Your task to perform on an android device: Find coffee shops on Maps Image 0: 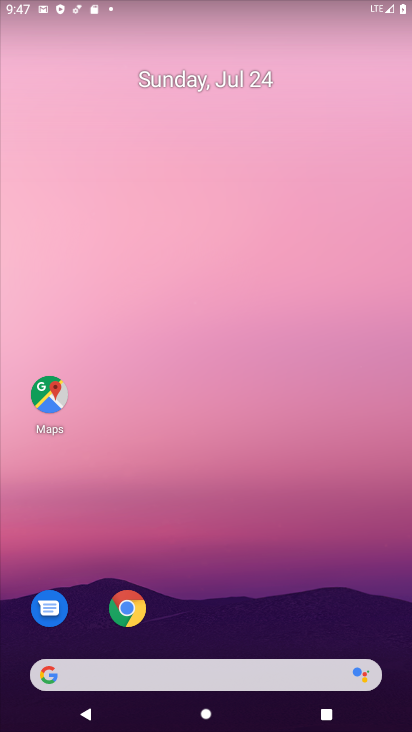
Step 0: press home button
Your task to perform on an android device: Find coffee shops on Maps Image 1: 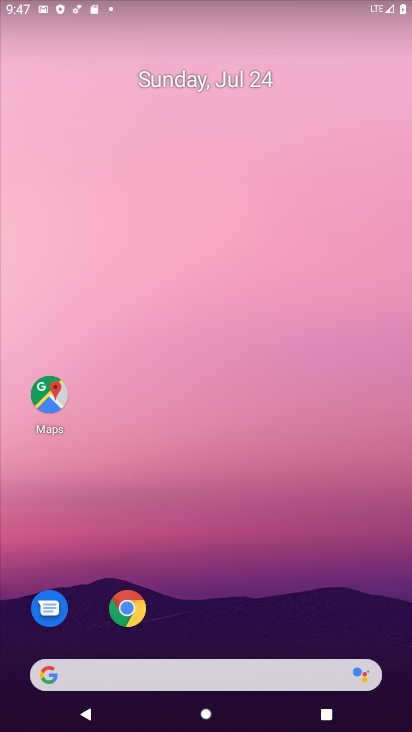
Step 1: click (51, 391)
Your task to perform on an android device: Find coffee shops on Maps Image 2: 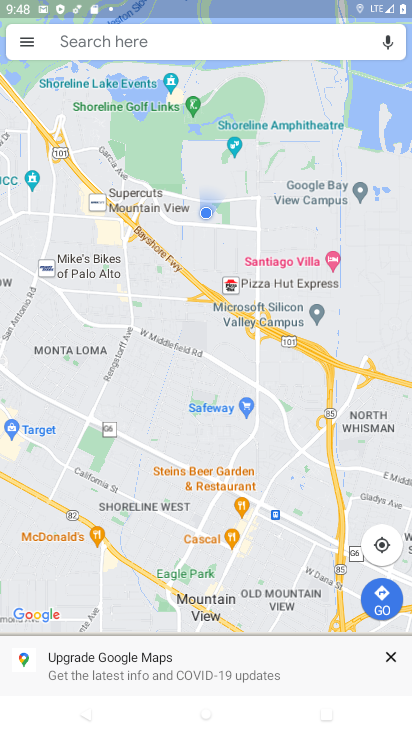
Step 2: click (100, 39)
Your task to perform on an android device: Find coffee shops on Maps Image 3: 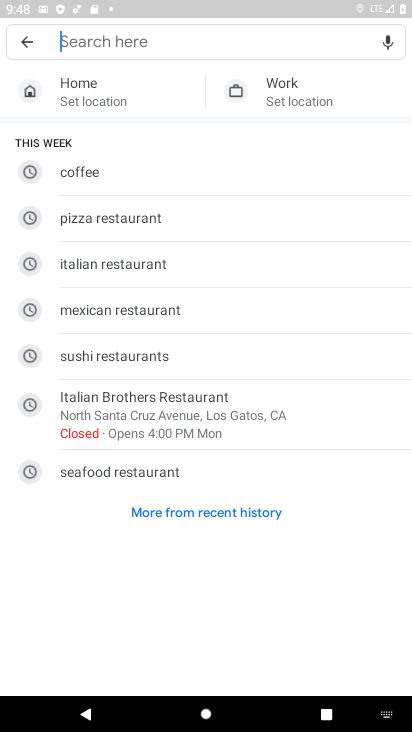
Step 3: click (105, 173)
Your task to perform on an android device: Find coffee shops on Maps Image 4: 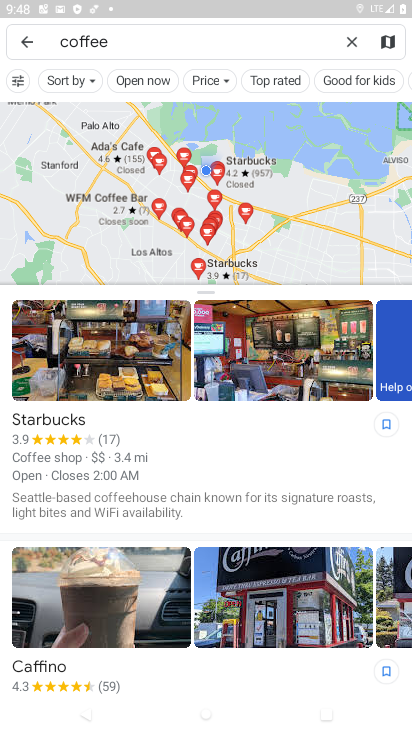
Step 4: task complete